Your task to perform on an android device: open app "Yahoo Mail" (install if not already installed), go to login, and select forgot password Image 0: 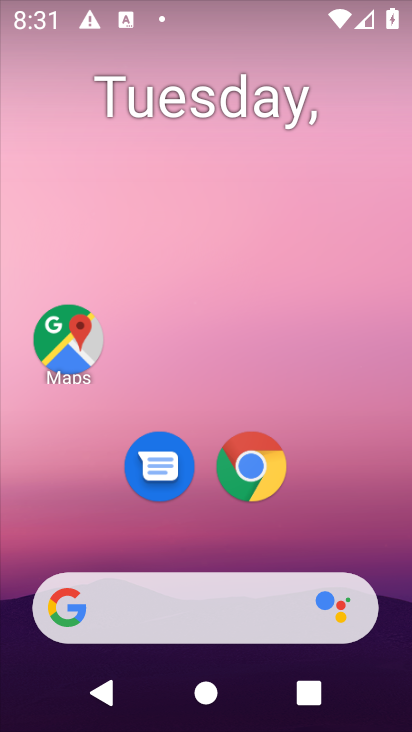
Step 0: click (272, 16)
Your task to perform on an android device: open app "Yahoo Mail" (install if not already installed), go to login, and select forgot password Image 1: 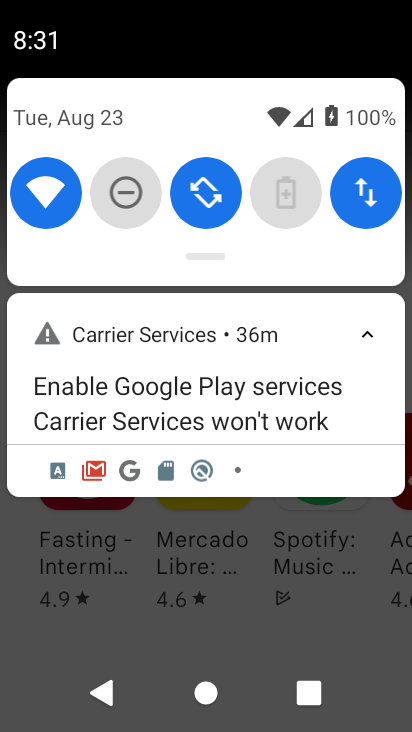
Step 1: click (272, 77)
Your task to perform on an android device: open app "Yahoo Mail" (install if not already installed), go to login, and select forgot password Image 2: 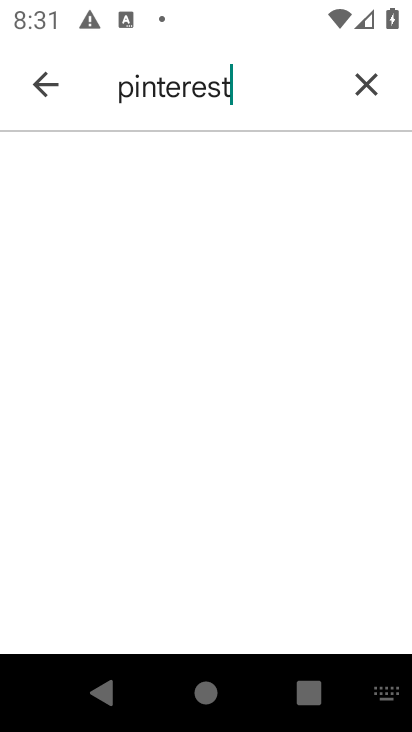
Step 2: click (359, 83)
Your task to perform on an android device: open app "Yahoo Mail" (install if not already installed), go to login, and select forgot password Image 3: 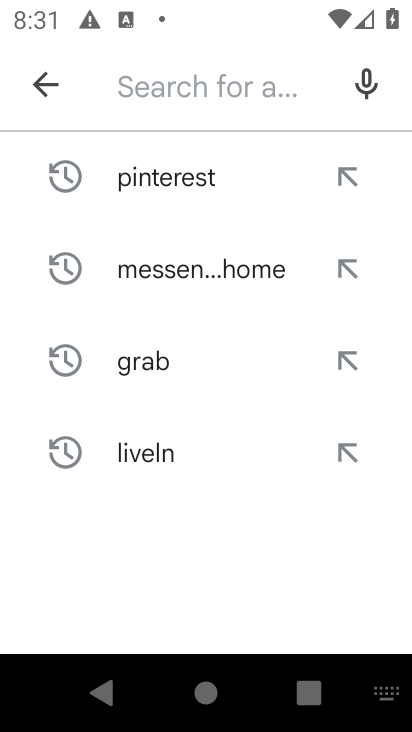
Step 3: type "yahoo mail"
Your task to perform on an android device: open app "Yahoo Mail" (install if not already installed), go to login, and select forgot password Image 4: 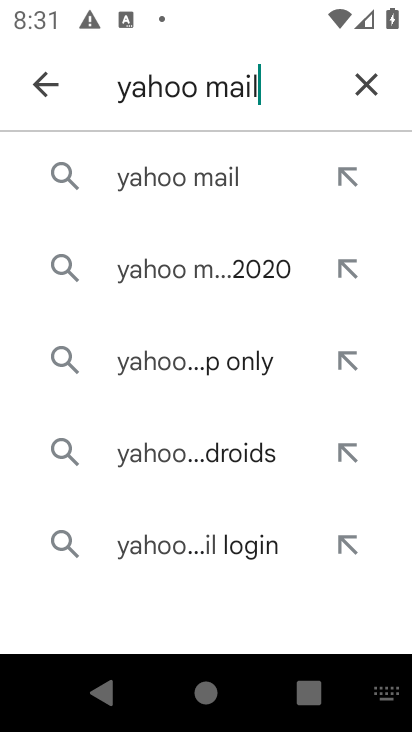
Step 4: click (172, 189)
Your task to perform on an android device: open app "Yahoo Mail" (install if not already installed), go to login, and select forgot password Image 5: 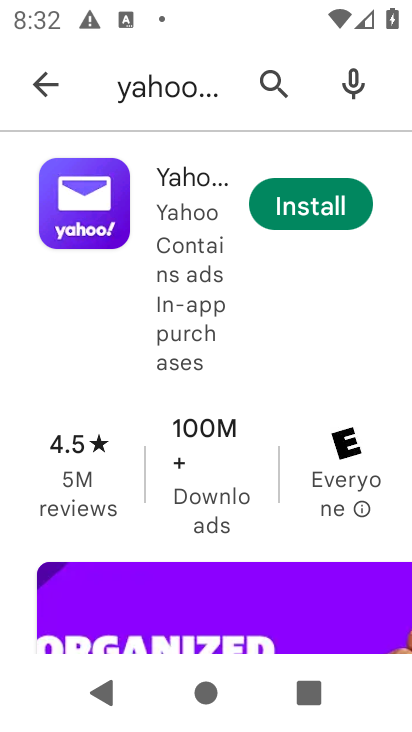
Step 5: click (272, 207)
Your task to perform on an android device: open app "Yahoo Mail" (install if not already installed), go to login, and select forgot password Image 6: 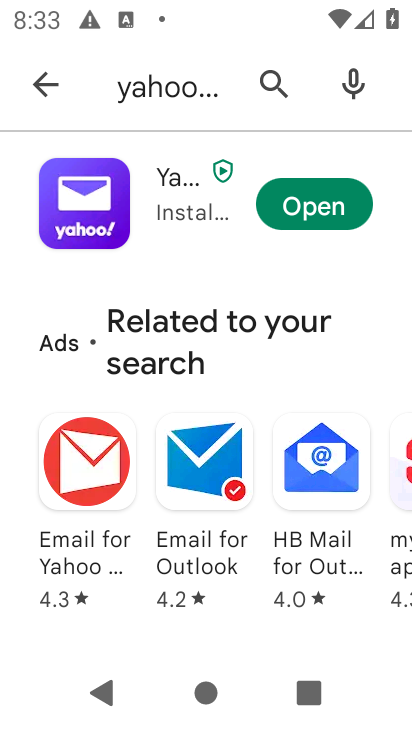
Step 6: click (297, 206)
Your task to perform on an android device: open app "Yahoo Mail" (install if not already installed), go to login, and select forgot password Image 7: 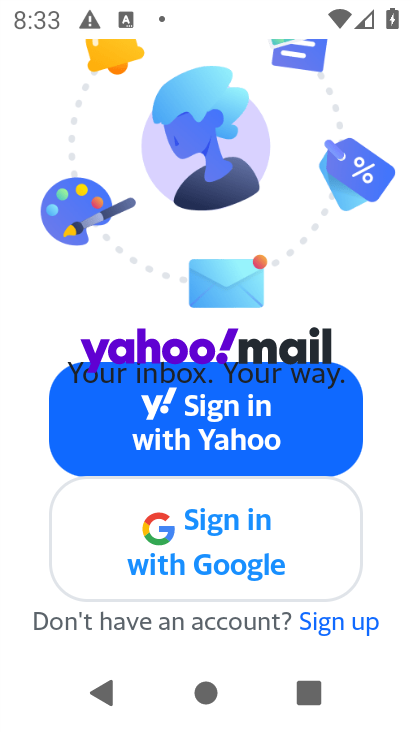
Step 7: click (212, 547)
Your task to perform on an android device: open app "Yahoo Mail" (install if not already installed), go to login, and select forgot password Image 8: 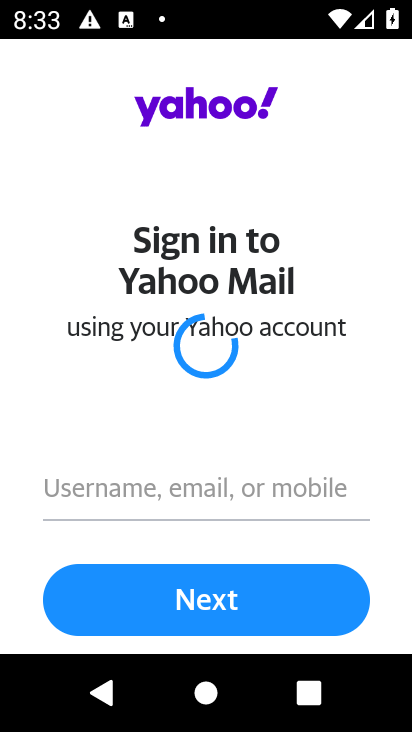
Step 8: task complete